Your task to perform on an android device: turn on airplane mode Image 0: 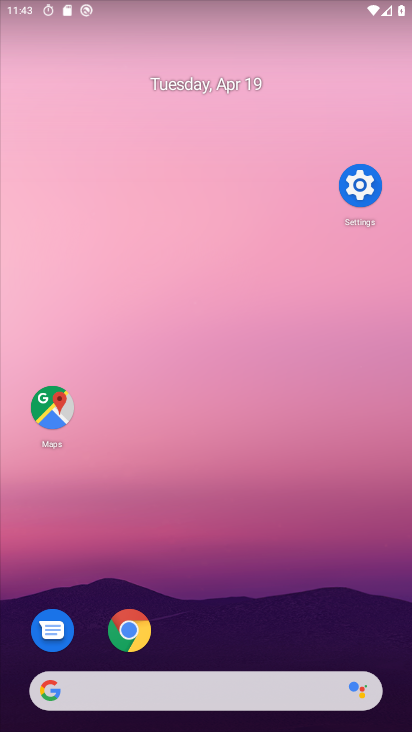
Step 0: drag from (275, 86) to (273, 0)
Your task to perform on an android device: turn on airplane mode Image 1: 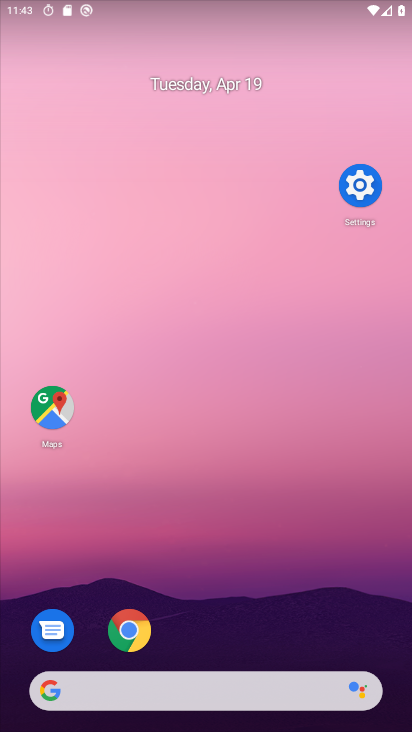
Step 1: drag from (240, 617) to (267, 170)
Your task to perform on an android device: turn on airplane mode Image 2: 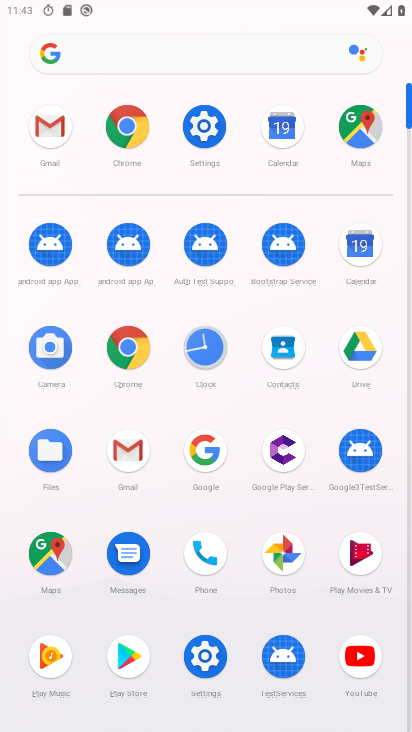
Step 2: click (212, 140)
Your task to perform on an android device: turn on airplane mode Image 3: 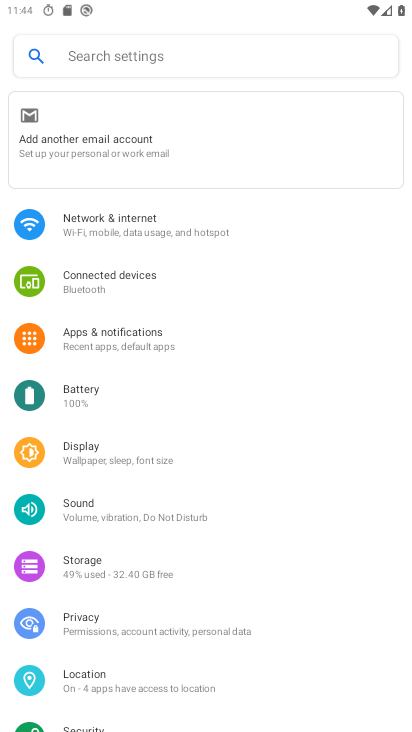
Step 3: click (177, 233)
Your task to perform on an android device: turn on airplane mode Image 4: 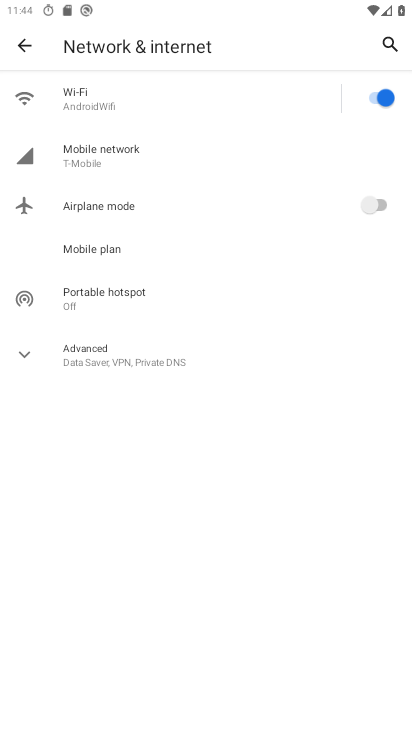
Step 4: click (359, 212)
Your task to perform on an android device: turn on airplane mode Image 5: 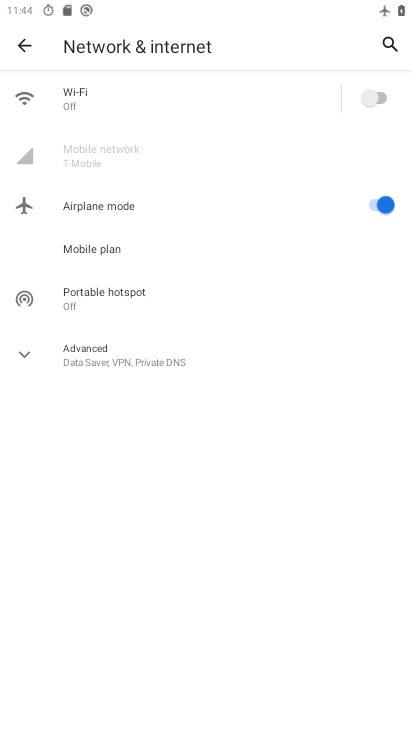
Step 5: task complete